Your task to perform on an android device: Open Google Chrome and open the bookmarks view Image 0: 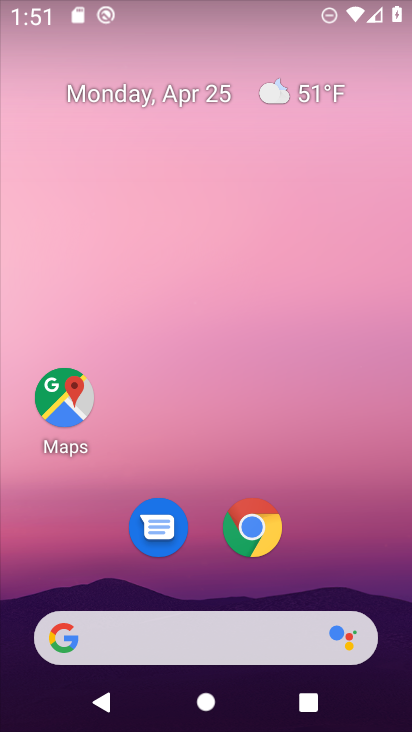
Step 0: drag from (327, 548) to (240, 19)
Your task to perform on an android device: Open Google Chrome and open the bookmarks view Image 1: 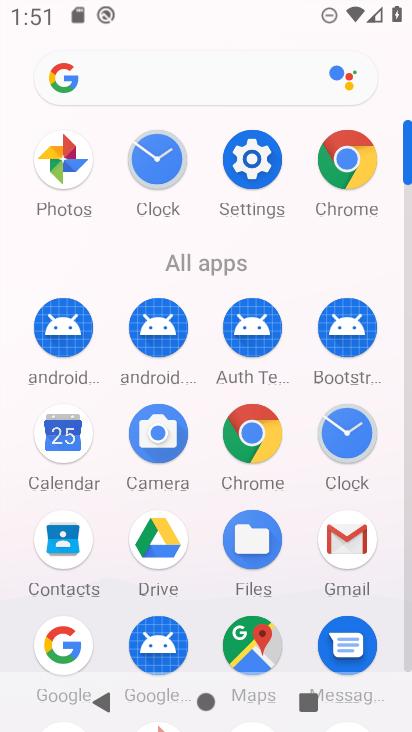
Step 1: drag from (13, 579) to (7, 257)
Your task to perform on an android device: Open Google Chrome and open the bookmarks view Image 2: 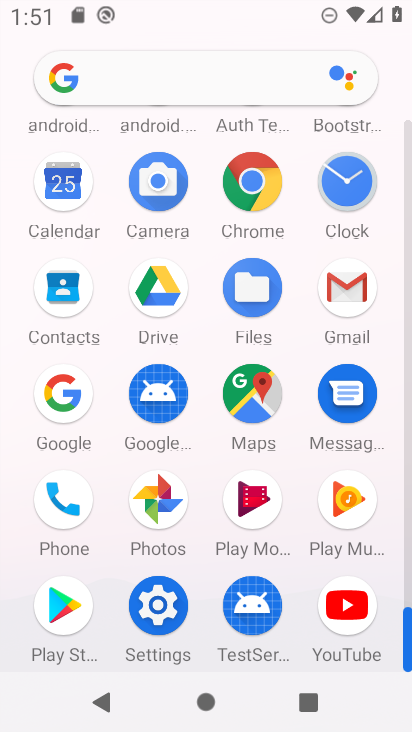
Step 2: click (248, 180)
Your task to perform on an android device: Open Google Chrome and open the bookmarks view Image 3: 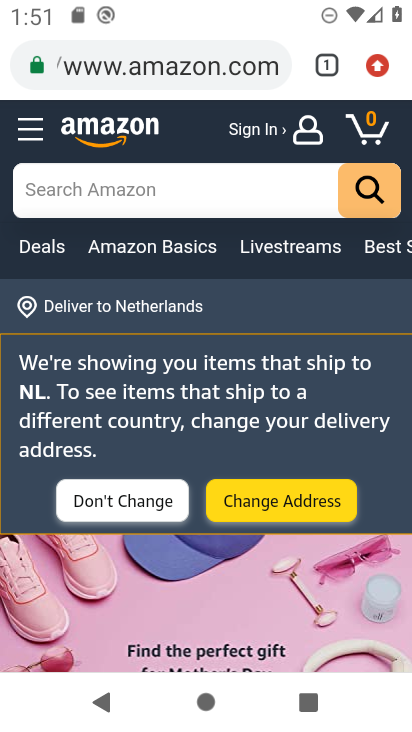
Step 3: task complete